Your task to perform on an android device: Is it going to rain this weekend? Image 0: 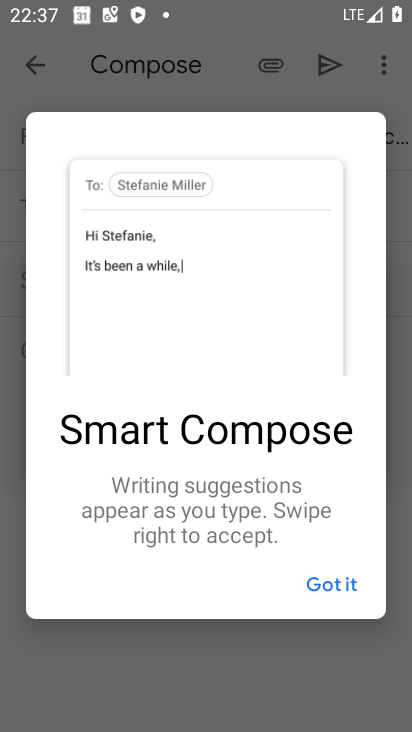
Step 0: press home button
Your task to perform on an android device: Is it going to rain this weekend? Image 1: 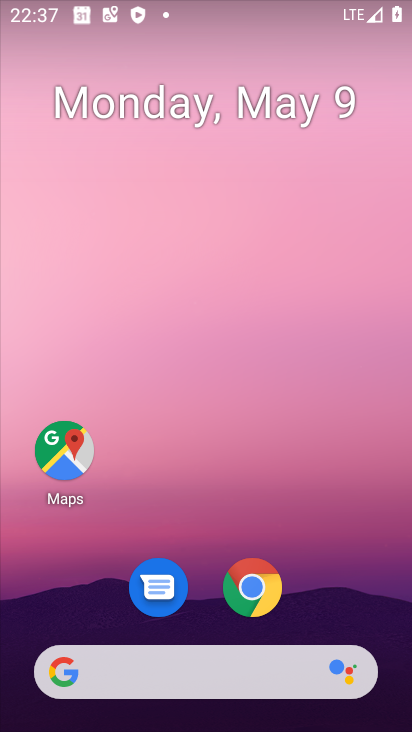
Step 1: click (164, 664)
Your task to perform on an android device: Is it going to rain this weekend? Image 2: 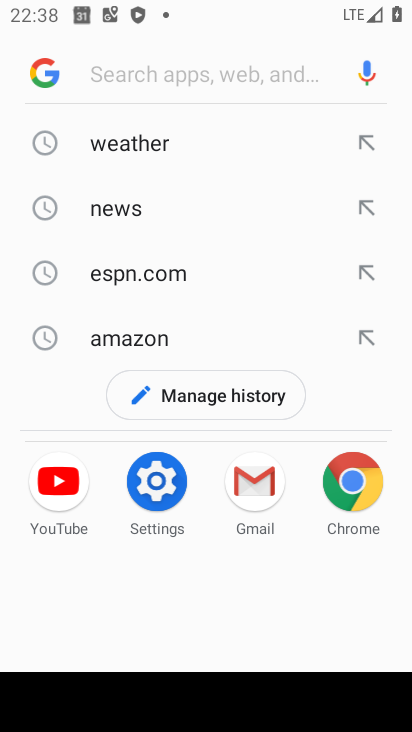
Step 2: click (132, 169)
Your task to perform on an android device: Is it going to rain this weekend? Image 3: 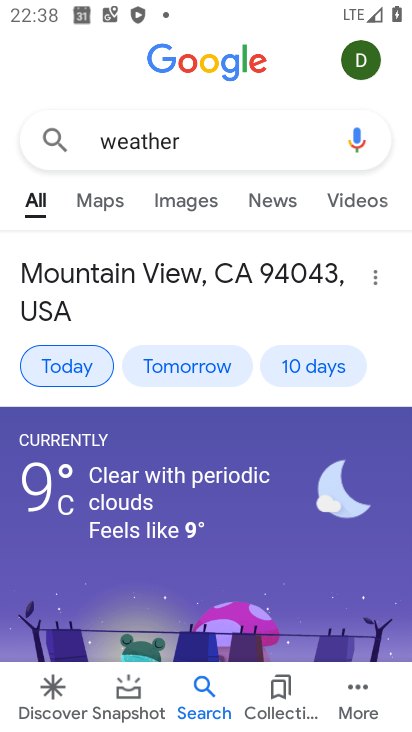
Step 3: click (320, 352)
Your task to perform on an android device: Is it going to rain this weekend? Image 4: 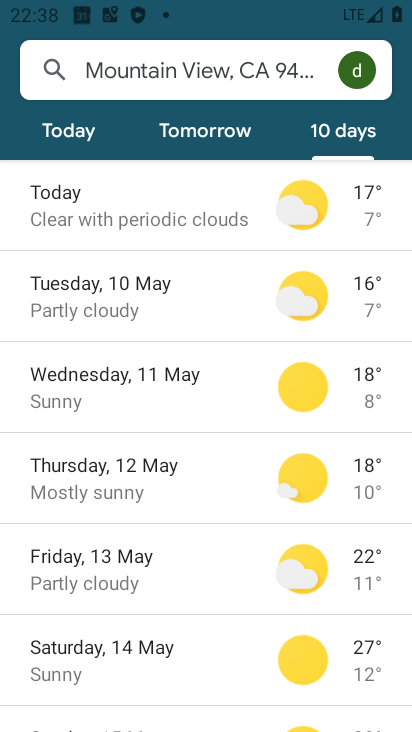
Step 4: task complete